Your task to perform on an android device: toggle show notifications on the lock screen Image 0: 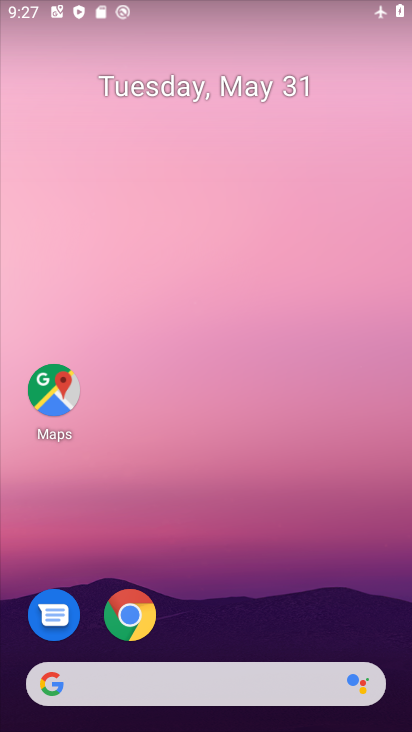
Step 0: drag from (370, 642) to (248, 90)
Your task to perform on an android device: toggle show notifications on the lock screen Image 1: 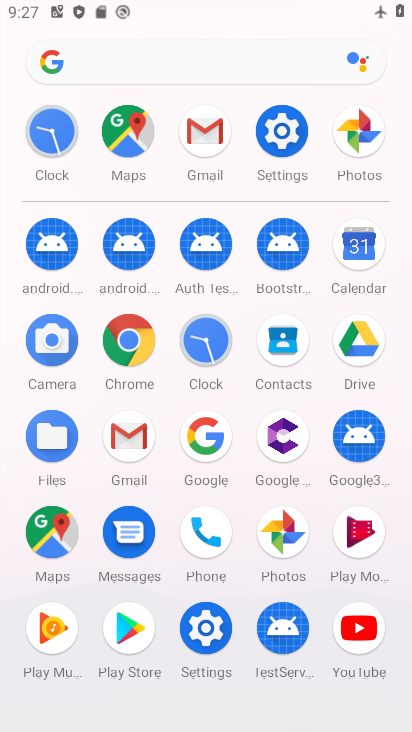
Step 1: click (206, 627)
Your task to perform on an android device: toggle show notifications on the lock screen Image 2: 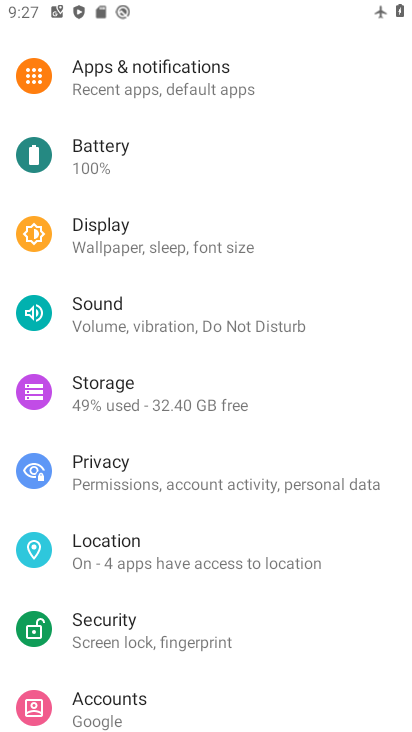
Step 2: drag from (299, 191) to (335, 505)
Your task to perform on an android device: toggle show notifications on the lock screen Image 3: 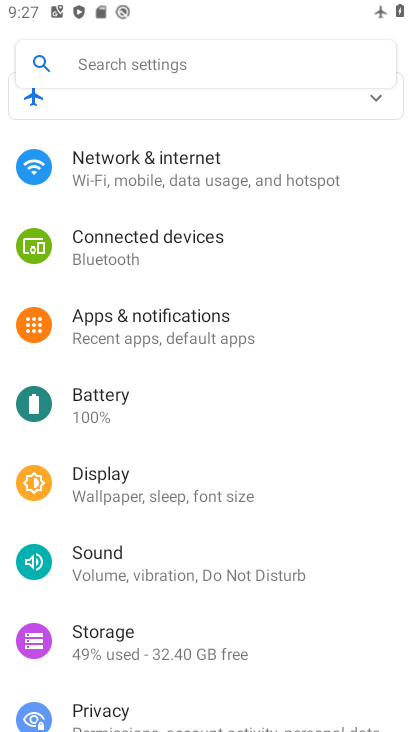
Step 3: click (109, 316)
Your task to perform on an android device: toggle show notifications on the lock screen Image 4: 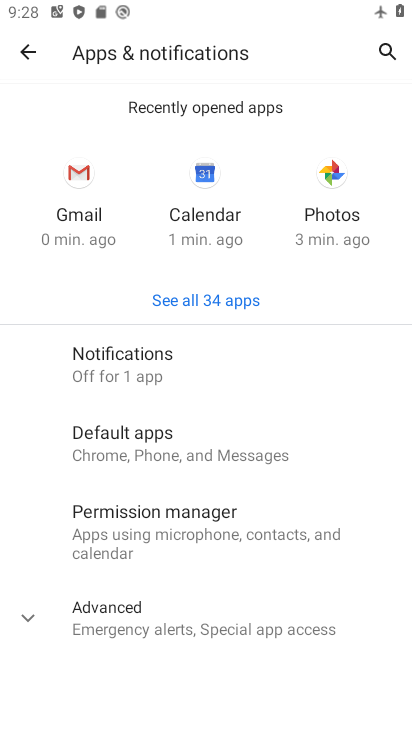
Step 4: click (115, 360)
Your task to perform on an android device: toggle show notifications on the lock screen Image 5: 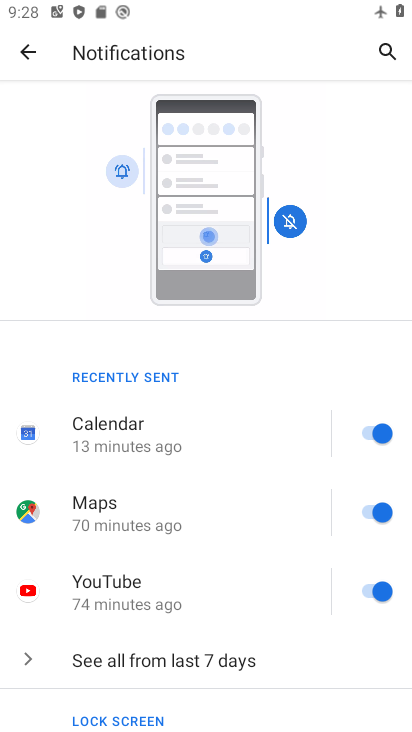
Step 5: drag from (308, 670) to (295, 155)
Your task to perform on an android device: toggle show notifications on the lock screen Image 6: 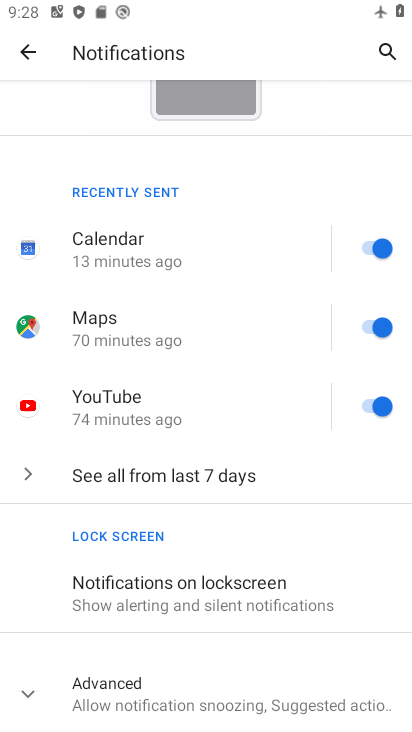
Step 6: click (151, 591)
Your task to perform on an android device: toggle show notifications on the lock screen Image 7: 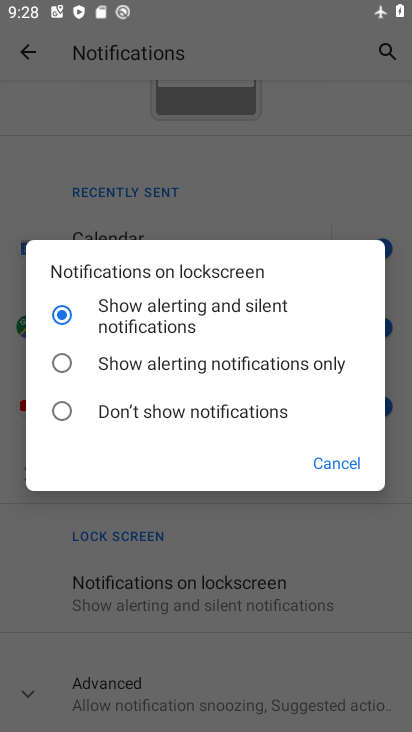
Step 7: click (64, 358)
Your task to perform on an android device: toggle show notifications on the lock screen Image 8: 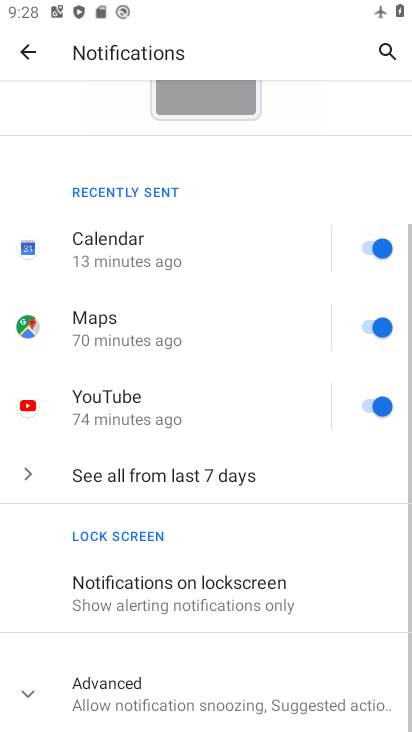
Step 8: task complete